Your task to perform on an android device: see tabs open on other devices in the chrome app Image 0: 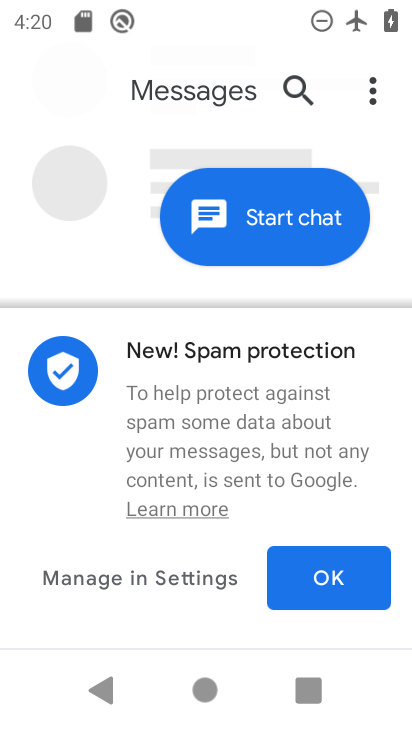
Step 0: press home button
Your task to perform on an android device: see tabs open on other devices in the chrome app Image 1: 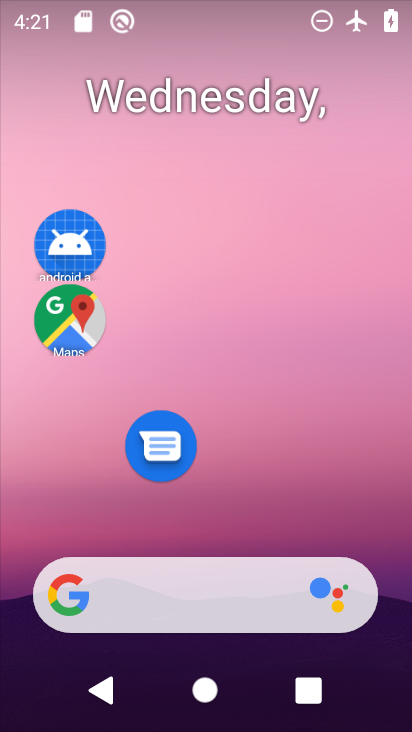
Step 1: drag from (354, 523) to (288, 196)
Your task to perform on an android device: see tabs open on other devices in the chrome app Image 2: 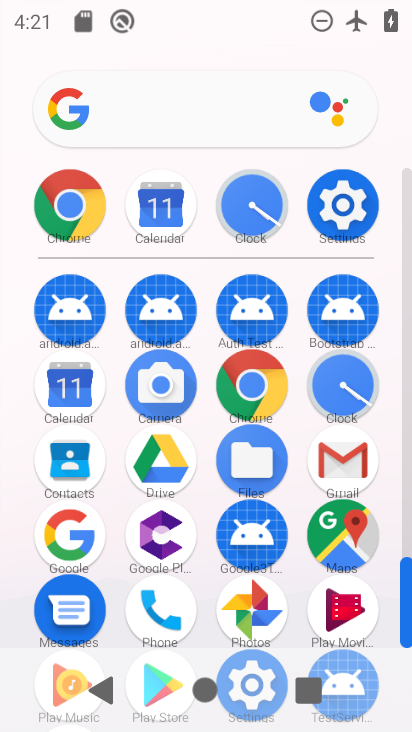
Step 2: click (260, 391)
Your task to perform on an android device: see tabs open on other devices in the chrome app Image 3: 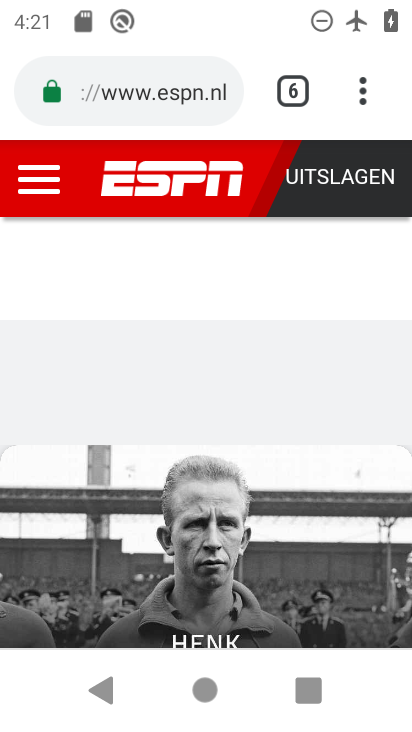
Step 3: click (365, 115)
Your task to perform on an android device: see tabs open on other devices in the chrome app Image 4: 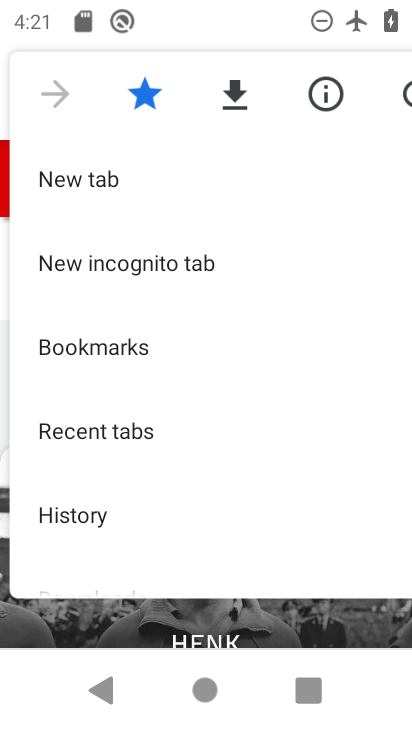
Step 4: click (249, 410)
Your task to perform on an android device: see tabs open on other devices in the chrome app Image 5: 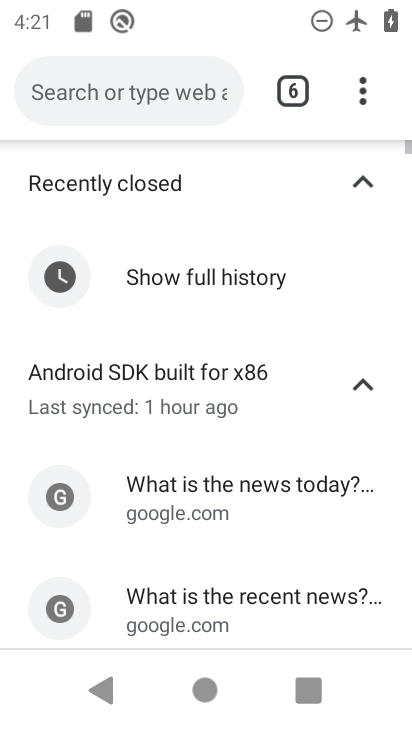
Step 5: task complete